Your task to perform on an android device: Open Wikipedia Image 0: 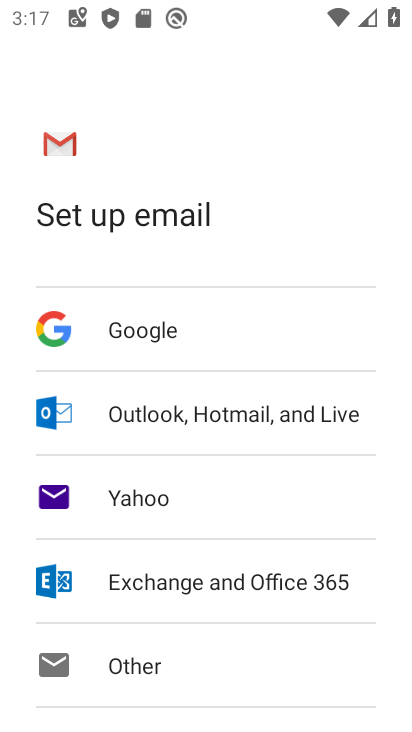
Step 0: press home button
Your task to perform on an android device: Open Wikipedia Image 1: 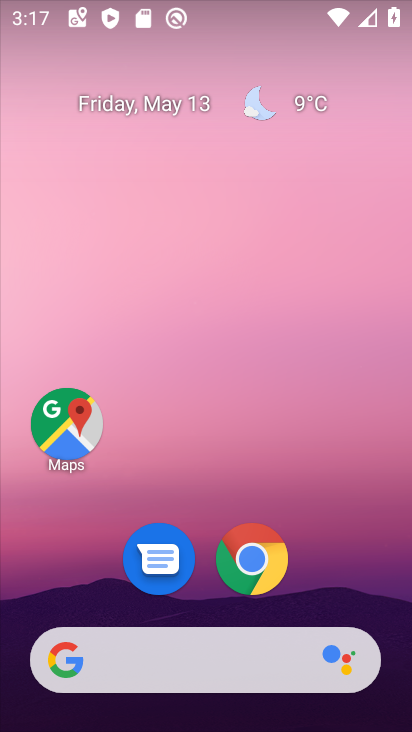
Step 1: click (250, 557)
Your task to perform on an android device: Open Wikipedia Image 2: 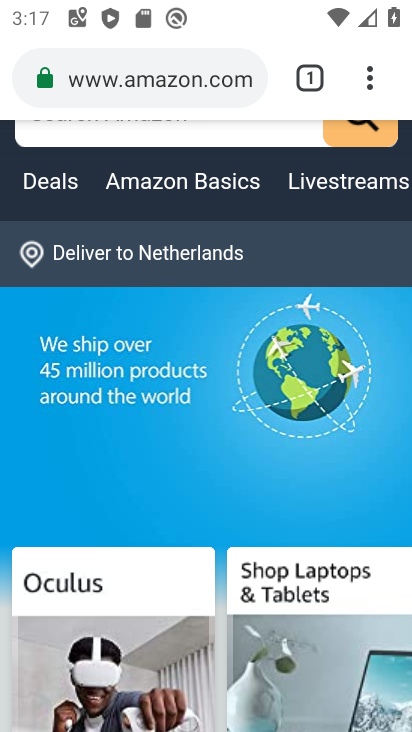
Step 2: click (119, 74)
Your task to perform on an android device: Open Wikipedia Image 3: 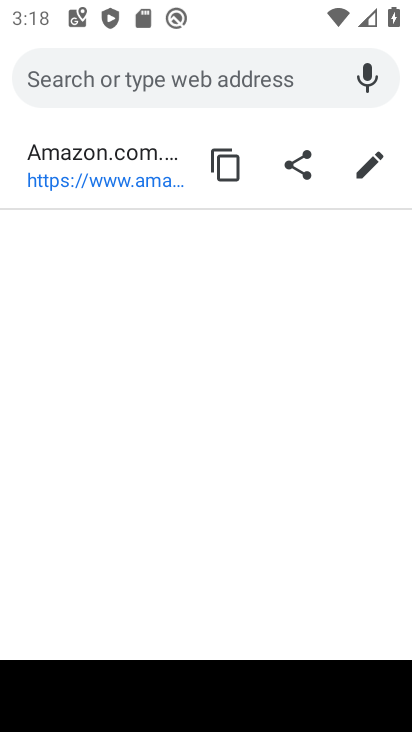
Step 3: type "wikipedia"
Your task to perform on an android device: Open Wikipedia Image 4: 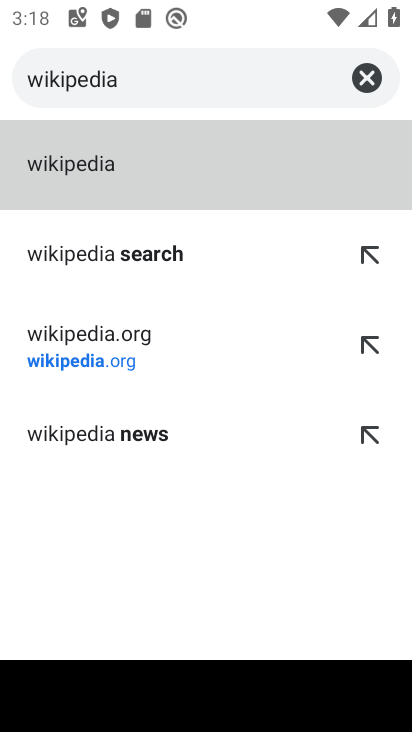
Step 4: click (115, 168)
Your task to perform on an android device: Open Wikipedia Image 5: 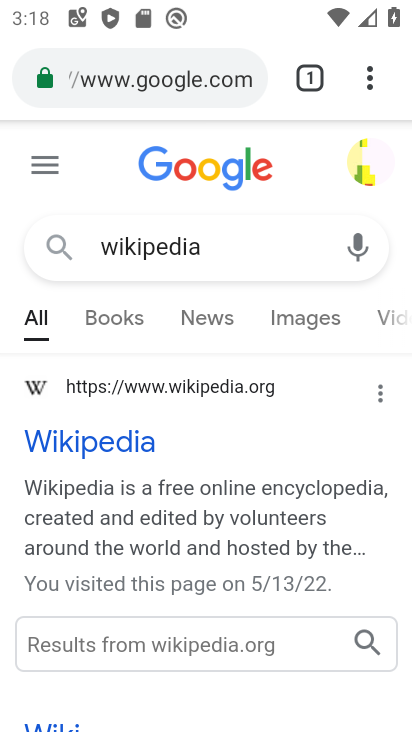
Step 5: click (84, 441)
Your task to perform on an android device: Open Wikipedia Image 6: 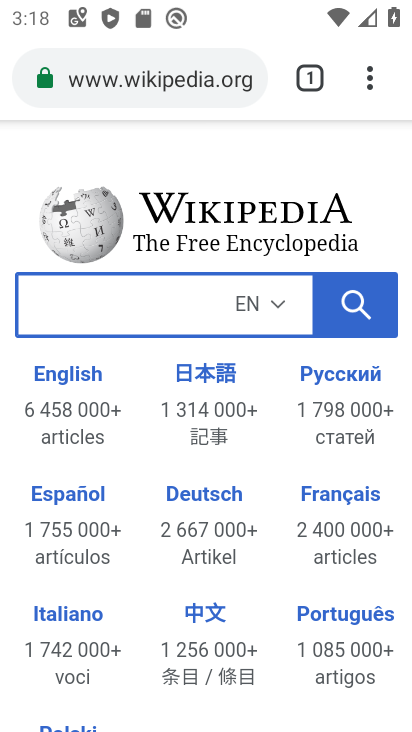
Step 6: task complete